Your task to perform on an android device: Find coffee shops on Maps Image 0: 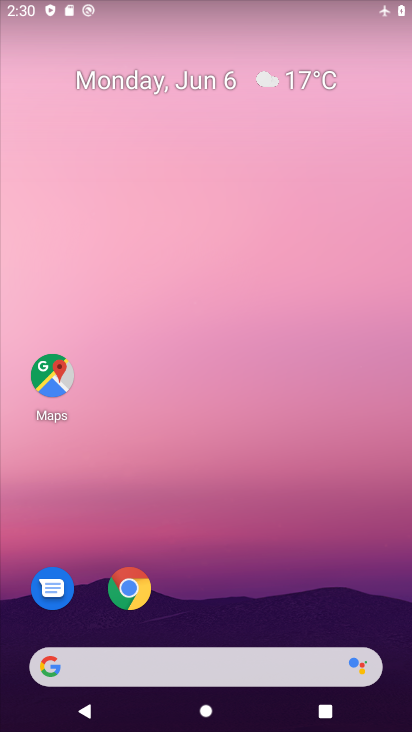
Step 0: click (65, 371)
Your task to perform on an android device: Find coffee shops on Maps Image 1: 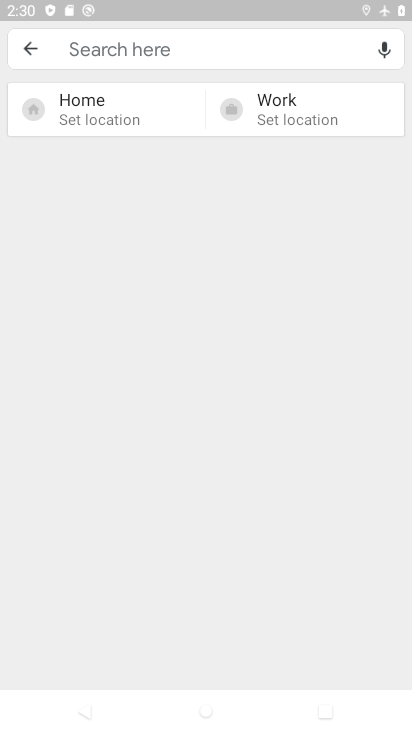
Step 1: click (26, 48)
Your task to perform on an android device: Find coffee shops on Maps Image 2: 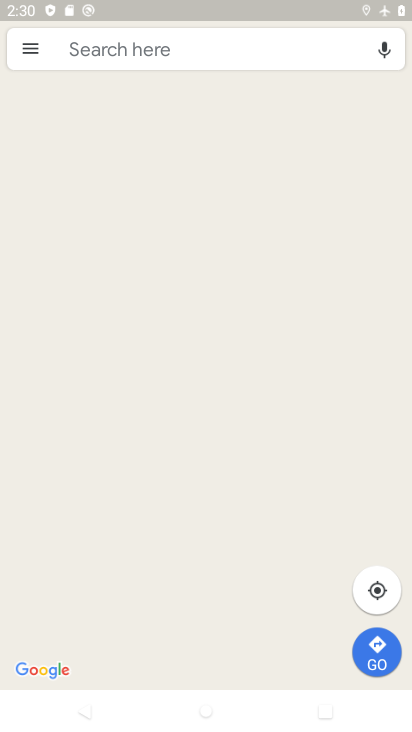
Step 2: click (386, 607)
Your task to perform on an android device: Find coffee shops on Maps Image 3: 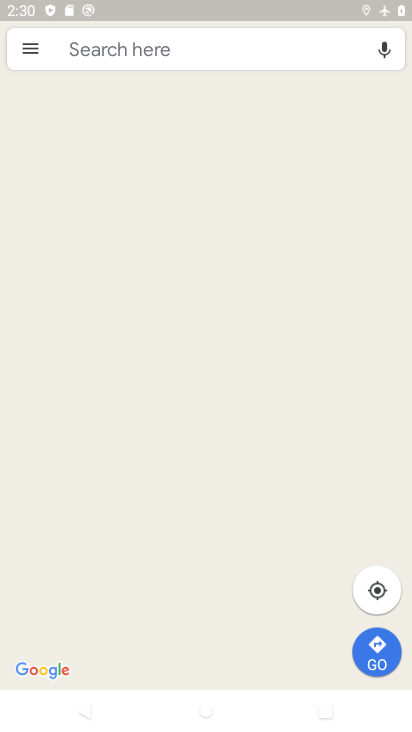
Step 3: click (381, 591)
Your task to perform on an android device: Find coffee shops on Maps Image 4: 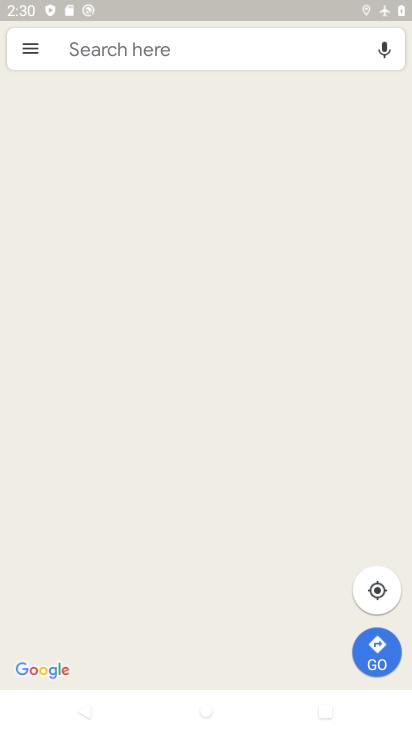
Step 4: click (381, 667)
Your task to perform on an android device: Find coffee shops on Maps Image 5: 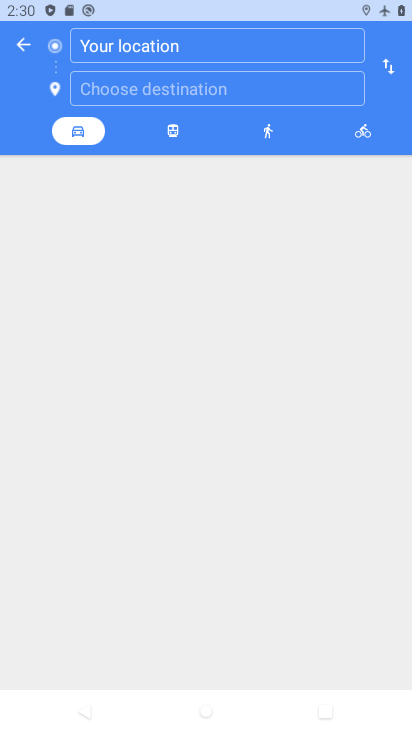
Step 5: click (195, 92)
Your task to perform on an android device: Find coffee shops on Maps Image 6: 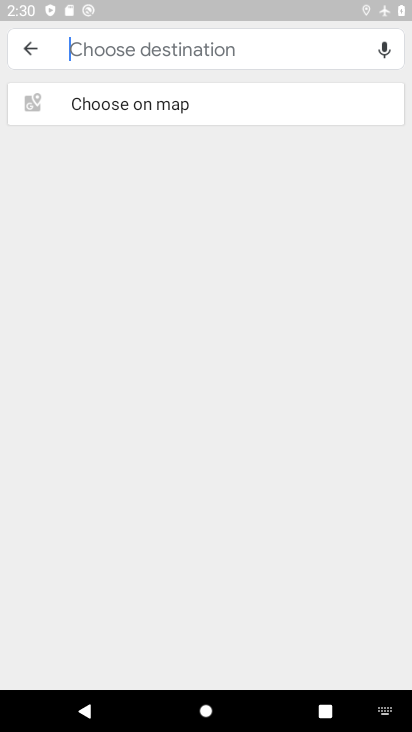
Step 6: click (151, 115)
Your task to perform on an android device: Find coffee shops on Maps Image 7: 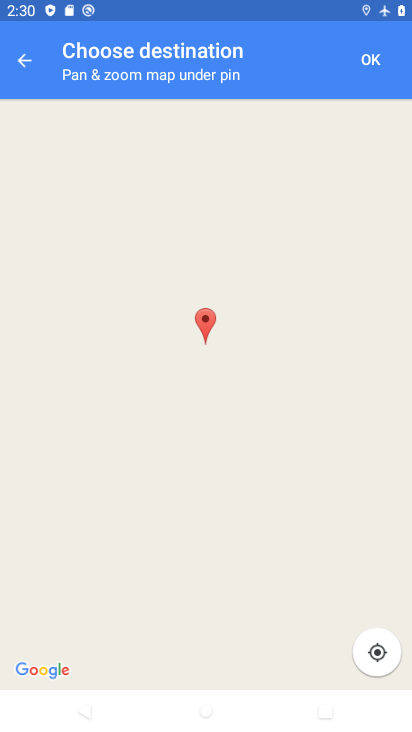
Step 7: drag from (193, 533) to (277, 345)
Your task to perform on an android device: Find coffee shops on Maps Image 8: 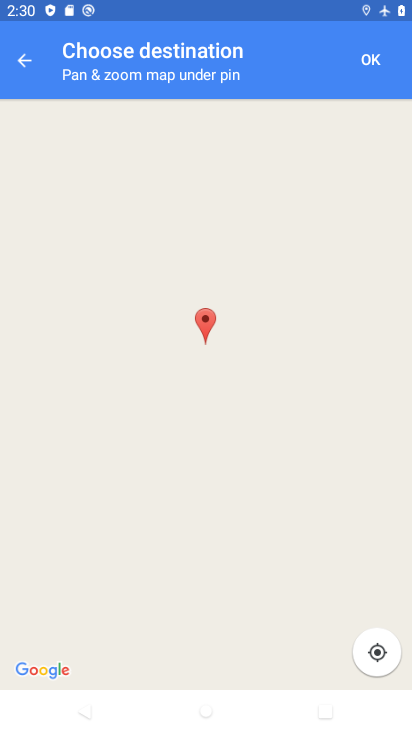
Step 8: press home button
Your task to perform on an android device: Find coffee shops on Maps Image 9: 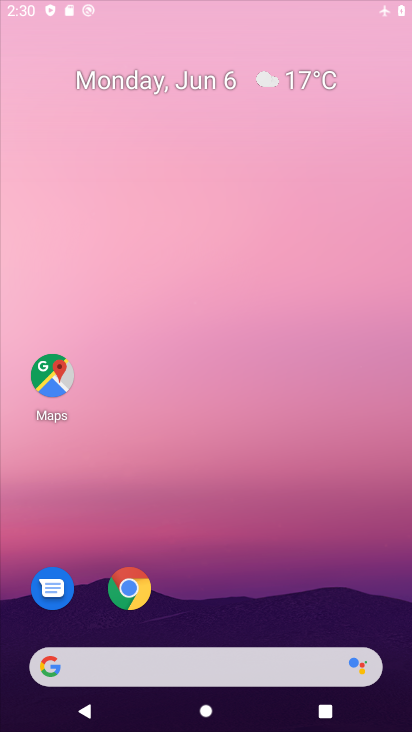
Step 9: drag from (311, 7) to (327, 451)
Your task to perform on an android device: Find coffee shops on Maps Image 10: 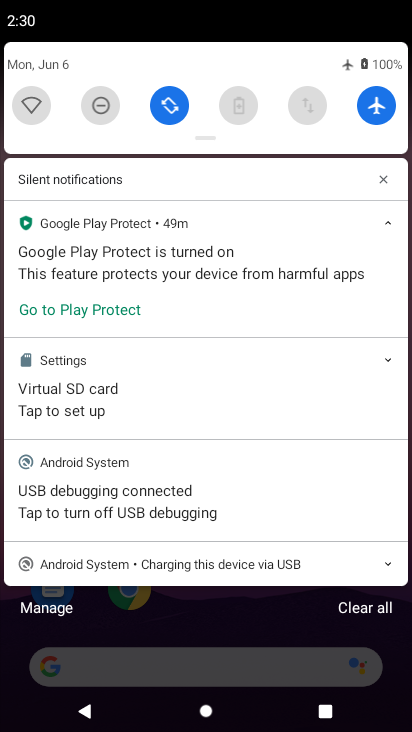
Step 10: click (382, 116)
Your task to perform on an android device: Find coffee shops on Maps Image 11: 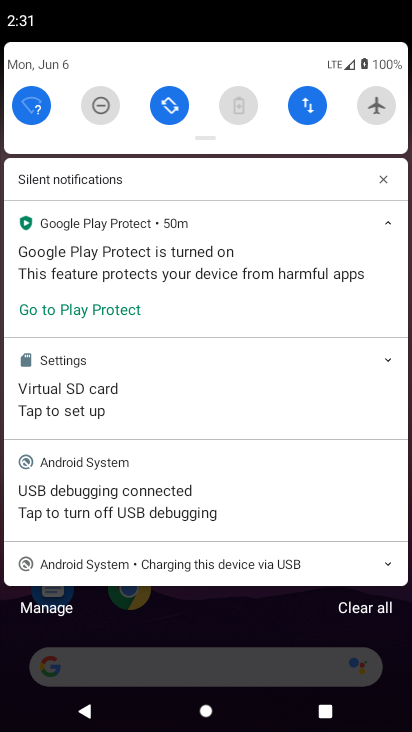
Step 11: task complete